Your task to perform on an android device: Go to Maps Image 0: 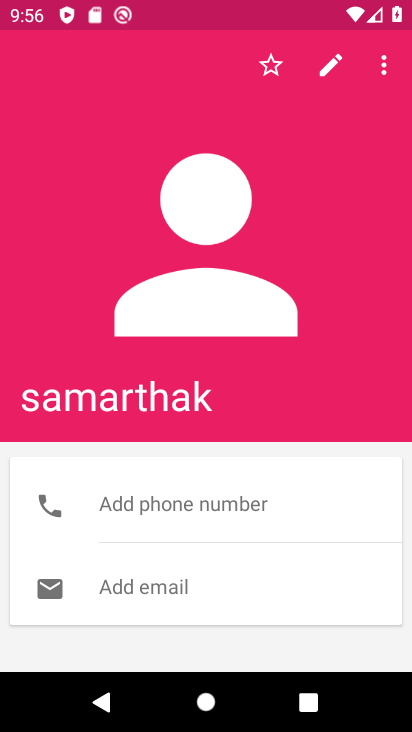
Step 0: press home button
Your task to perform on an android device: Go to Maps Image 1: 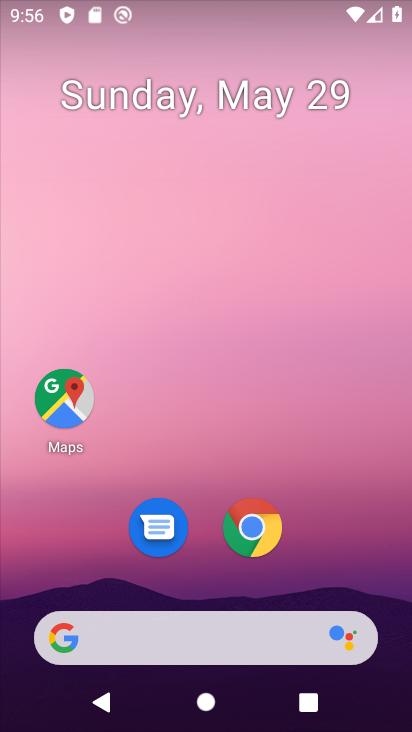
Step 1: click (58, 401)
Your task to perform on an android device: Go to Maps Image 2: 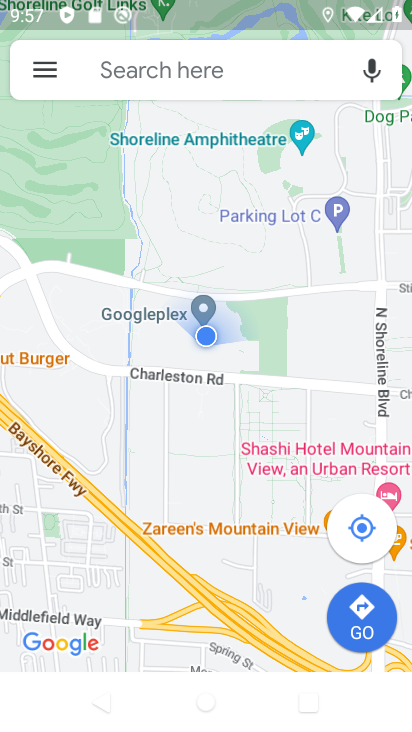
Step 2: task complete